Your task to perform on an android device: Search for hotels in New York Image 0: 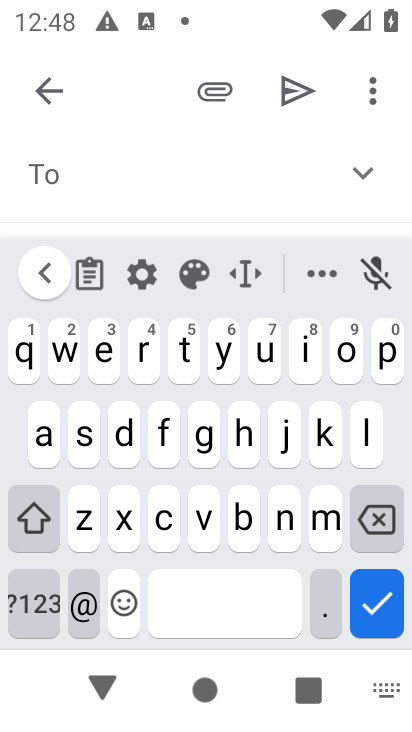
Step 0: press home button
Your task to perform on an android device: Search for hotels in New York Image 1: 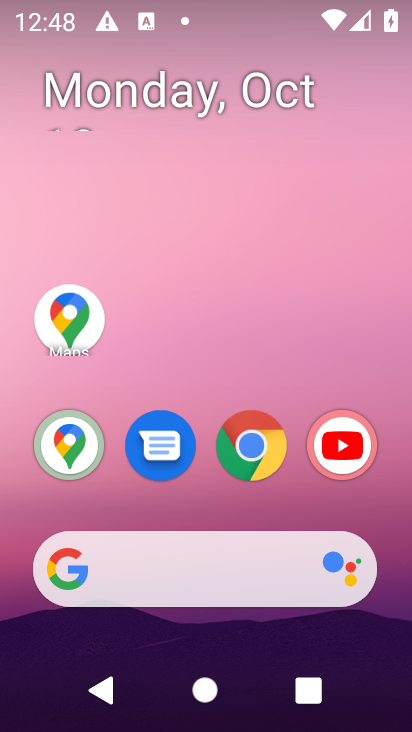
Step 1: click (52, 567)
Your task to perform on an android device: Search for hotels in New York Image 2: 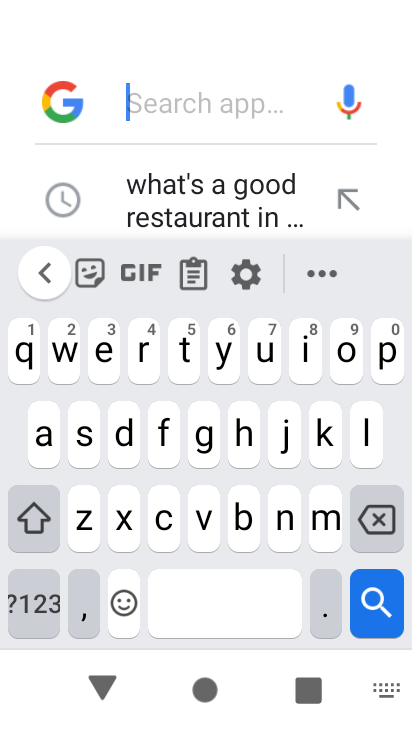
Step 2: click (158, 101)
Your task to perform on an android device: Search for hotels in New York Image 3: 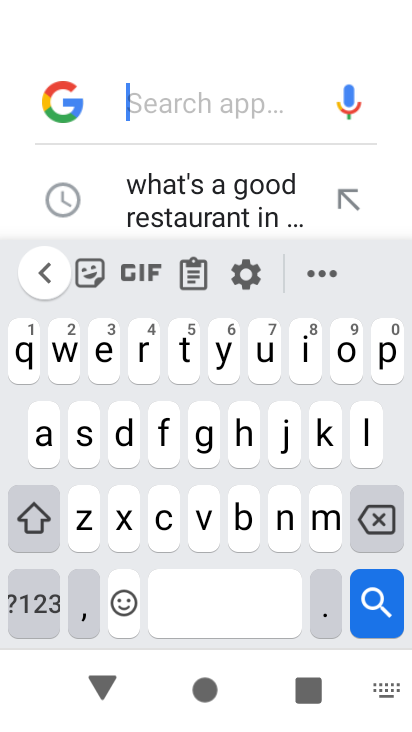
Step 3: type "hotels in new york"
Your task to perform on an android device: Search for hotels in New York Image 4: 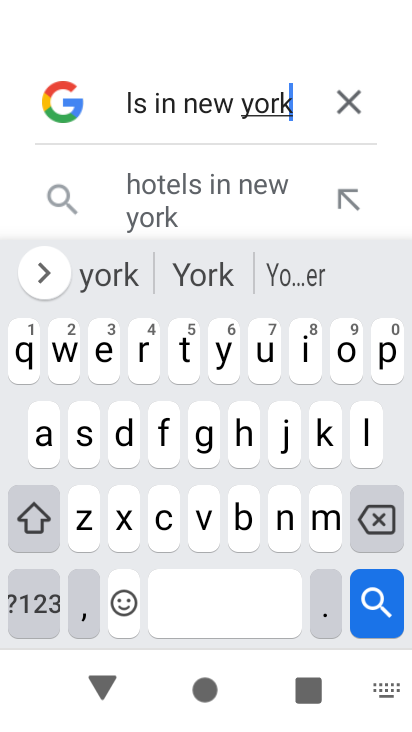
Step 4: click (268, 193)
Your task to perform on an android device: Search for hotels in New York Image 5: 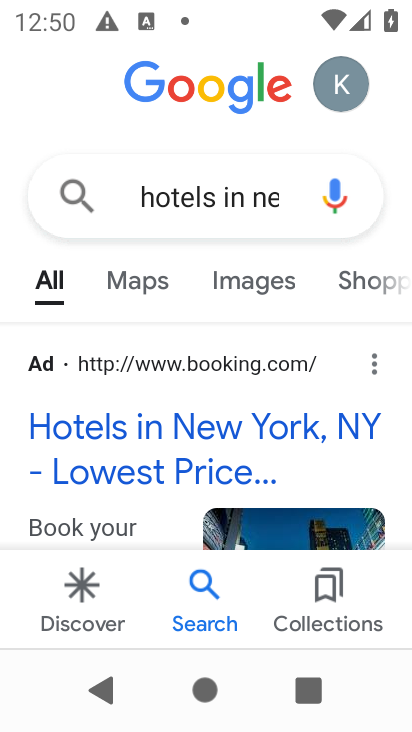
Step 5: task complete